Your task to perform on an android device: When is my next appointment? Image 0: 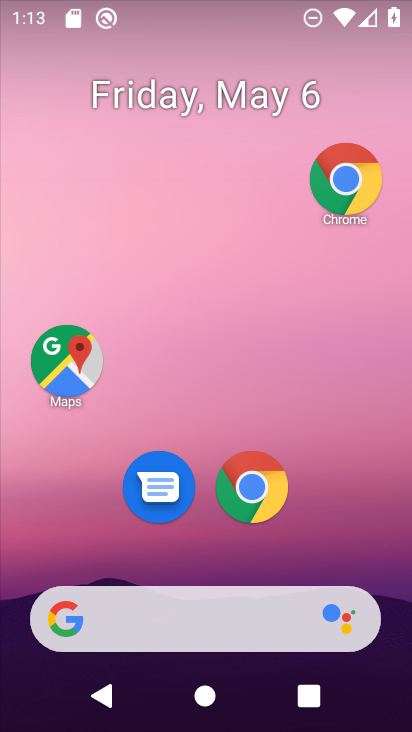
Step 0: drag from (329, 510) to (313, 36)
Your task to perform on an android device: When is my next appointment? Image 1: 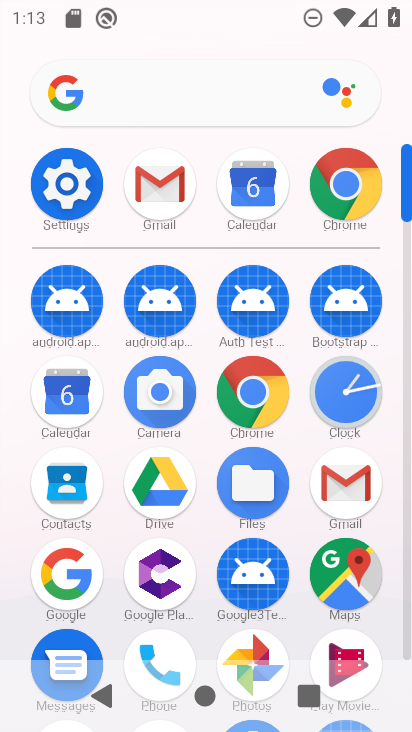
Step 1: click (87, 398)
Your task to perform on an android device: When is my next appointment? Image 2: 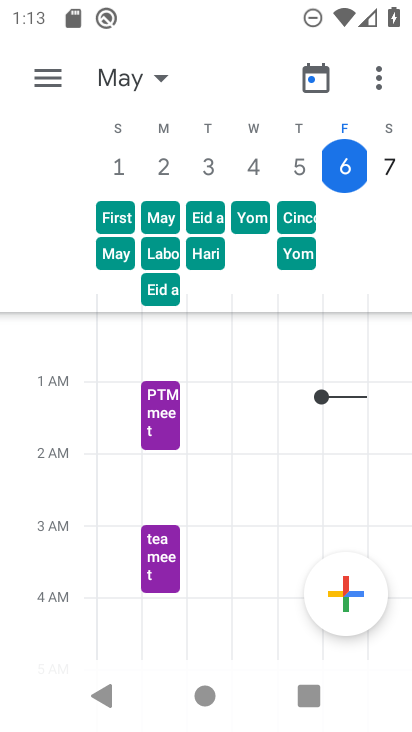
Step 2: task complete